Your task to perform on an android device: turn on priority inbox in the gmail app Image 0: 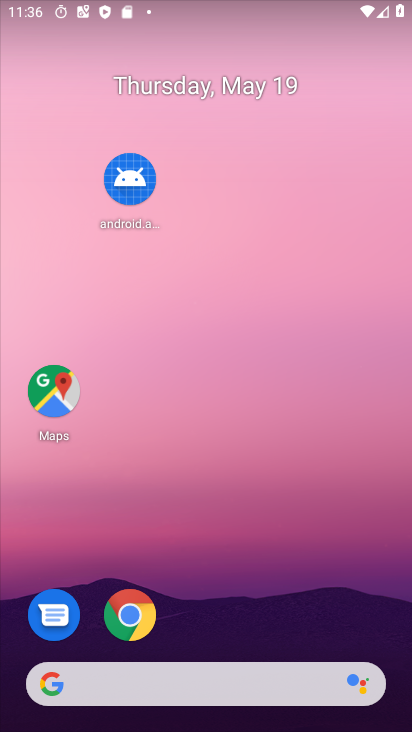
Step 0: press home button
Your task to perform on an android device: turn on priority inbox in the gmail app Image 1: 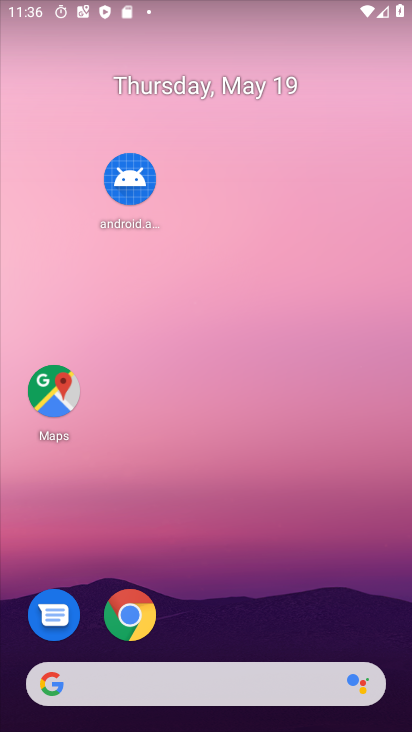
Step 1: drag from (289, 564) to (140, 134)
Your task to perform on an android device: turn on priority inbox in the gmail app Image 2: 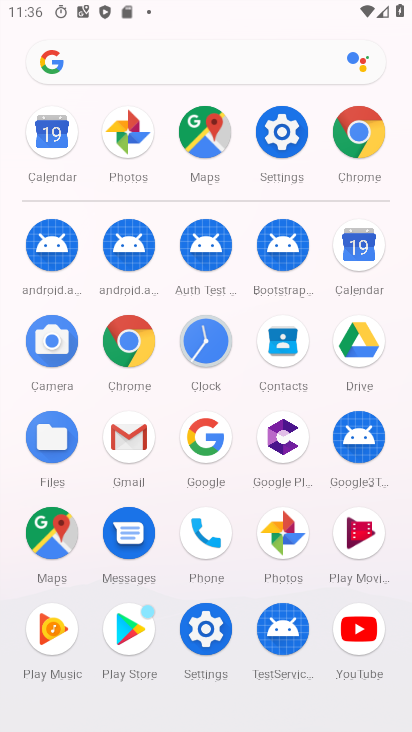
Step 2: click (132, 439)
Your task to perform on an android device: turn on priority inbox in the gmail app Image 3: 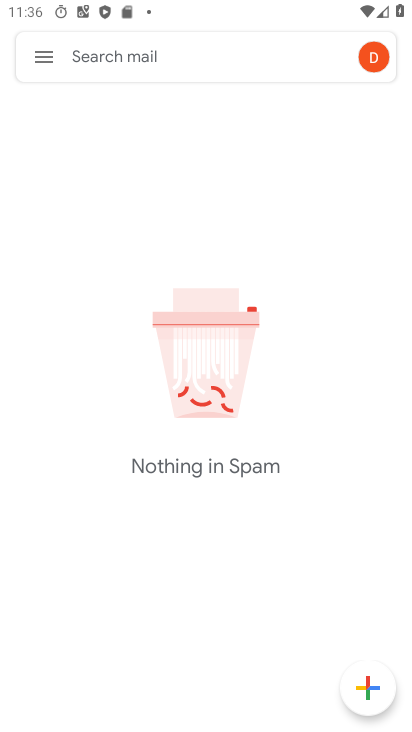
Step 3: click (44, 65)
Your task to perform on an android device: turn on priority inbox in the gmail app Image 4: 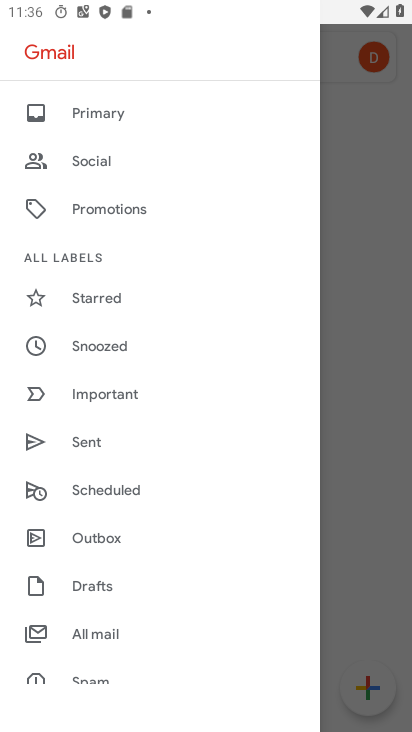
Step 4: drag from (261, 607) to (213, 410)
Your task to perform on an android device: turn on priority inbox in the gmail app Image 5: 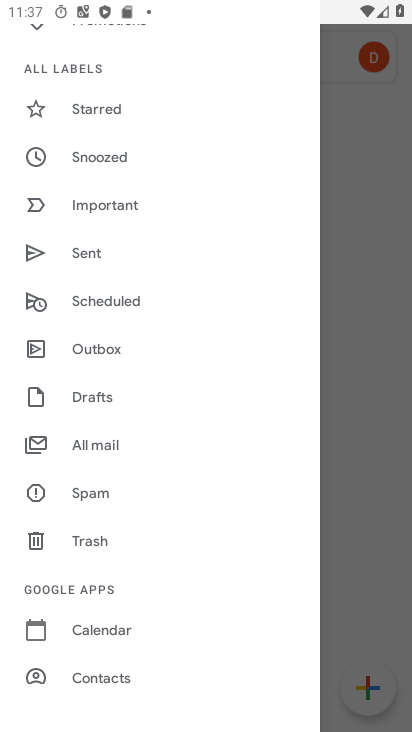
Step 5: drag from (162, 639) to (123, 476)
Your task to perform on an android device: turn on priority inbox in the gmail app Image 6: 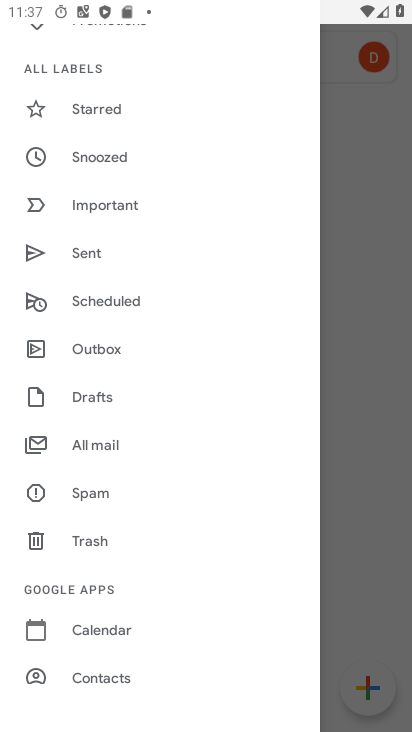
Step 6: drag from (123, 663) to (113, 474)
Your task to perform on an android device: turn on priority inbox in the gmail app Image 7: 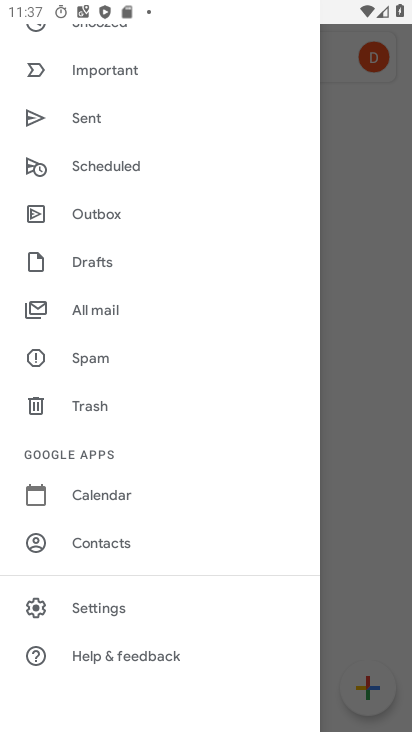
Step 7: click (117, 599)
Your task to perform on an android device: turn on priority inbox in the gmail app Image 8: 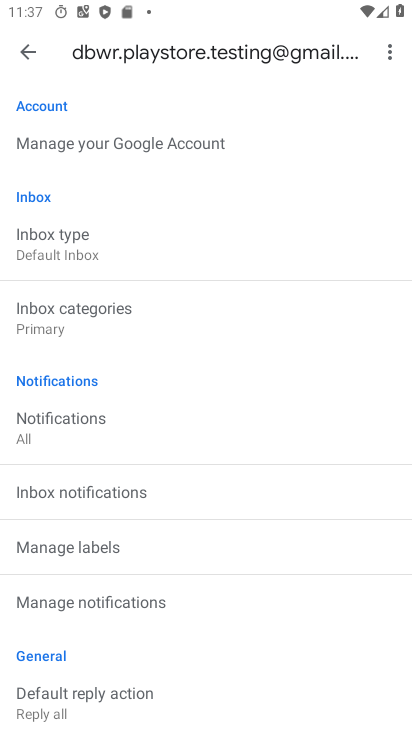
Step 8: click (105, 253)
Your task to perform on an android device: turn on priority inbox in the gmail app Image 9: 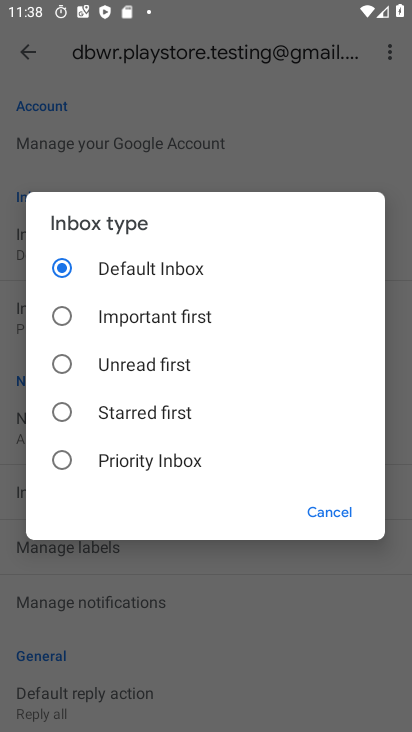
Step 9: click (193, 464)
Your task to perform on an android device: turn on priority inbox in the gmail app Image 10: 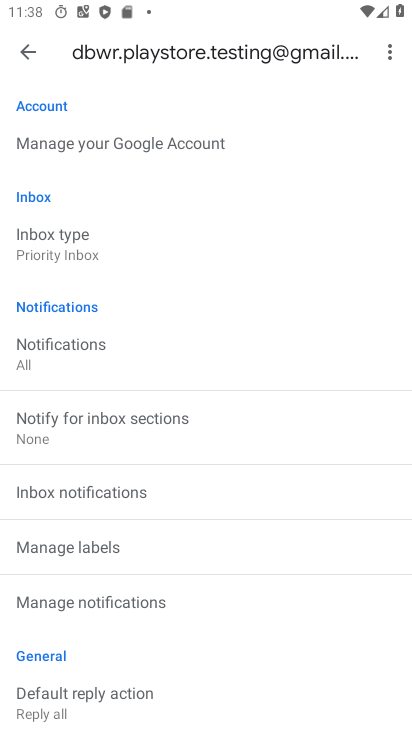
Step 10: task complete